Your task to perform on an android device: Open Youtube and go to the subscriptions tab Image 0: 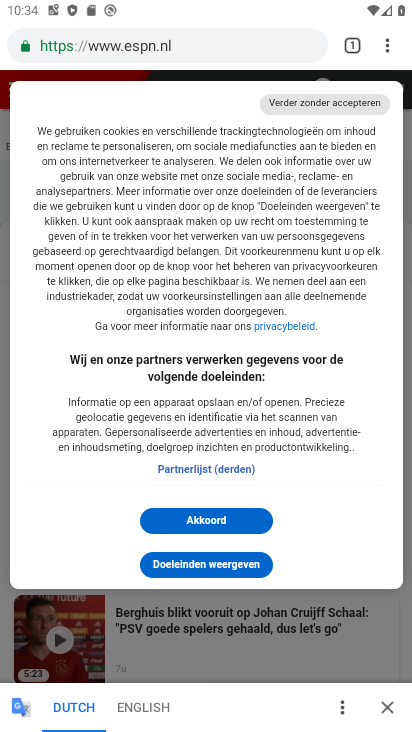
Step 0: press home button
Your task to perform on an android device: Open Youtube and go to the subscriptions tab Image 1: 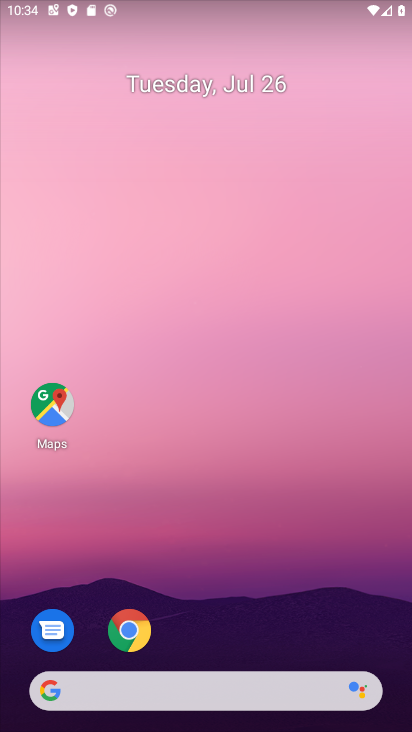
Step 1: drag from (214, 369) to (264, 100)
Your task to perform on an android device: Open Youtube and go to the subscriptions tab Image 2: 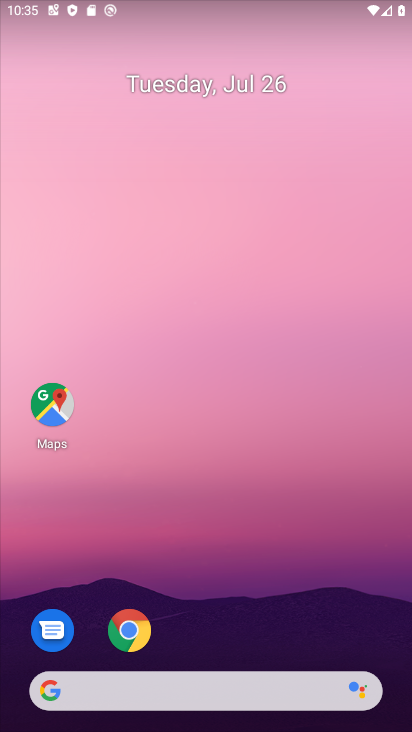
Step 2: drag from (225, 563) to (233, 154)
Your task to perform on an android device: Open Youtube and go to the subscriptions tab Image 3: 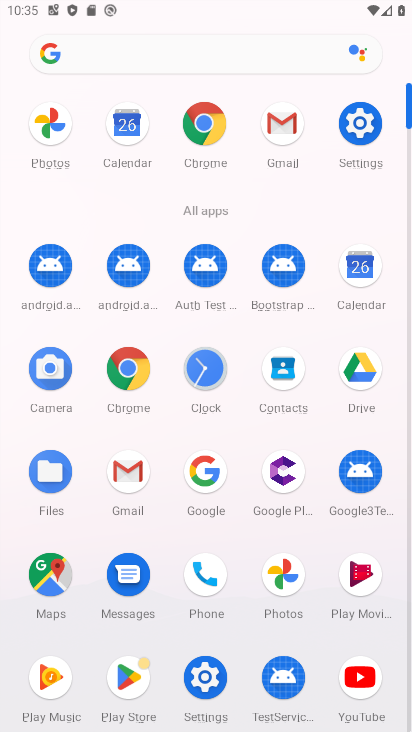
Step 3: click (366, 687)
Your task to perform on an android device: Open Youtube and go to the subscriptions tab Image 4: 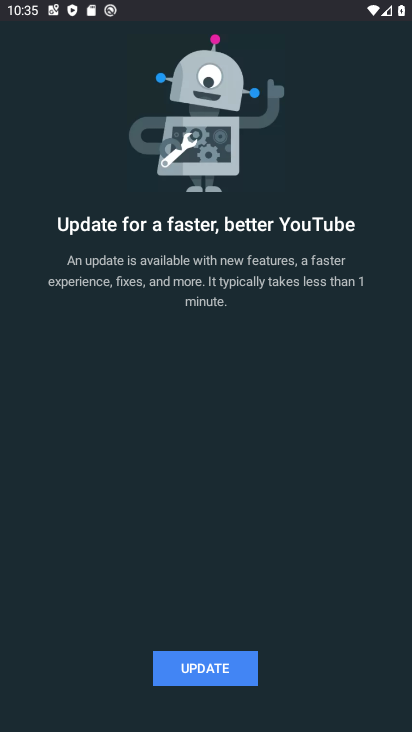
Step 4: click (212, 665)
Your task to perform on an android device: Open Youtube and go to the subscriptions tab Image 5: 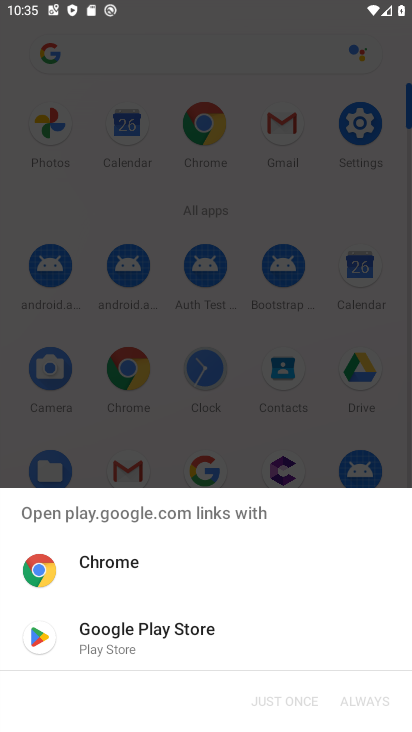
Step 5: click (123, 641)
Your task to perform on an android device: Open Youtube and go to the subscriptions tab Image 6: 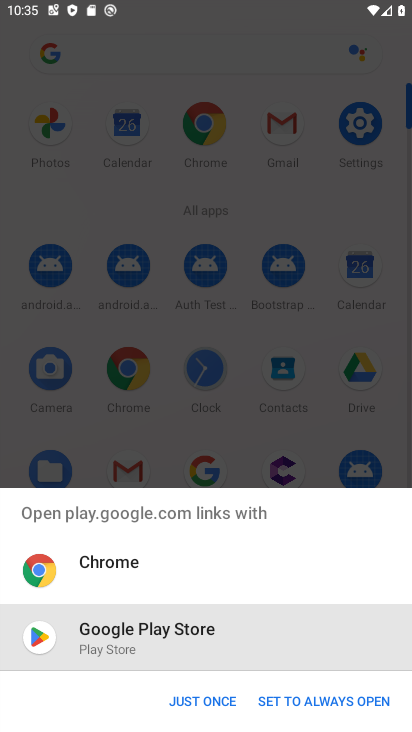
Step 6: click (297, 694)
Your task to perform on an android device: Open Youtube and go to the subscriptions tab Image 7: 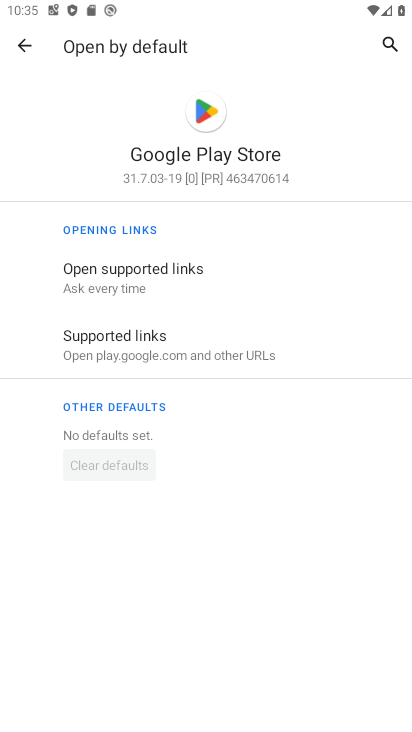
Step 7: click (121, 267)
Your task to perform on an android device: Open Youtube and go to the subscriptions tab Image 8: 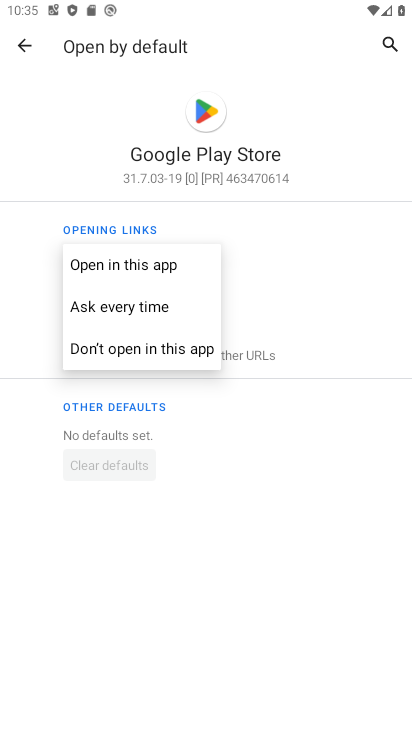
Step 8: click (101, 261)
Your task to perform on an android device: Open Youtube and go to the subscriptions tab Image 9: 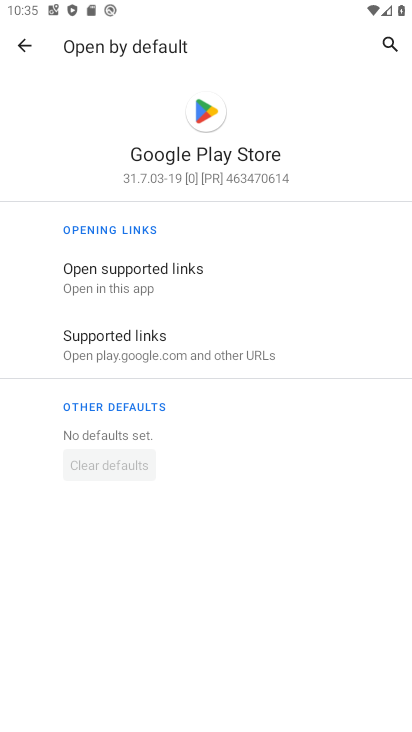
Step 9: click (20, 41)
Your task to perform on an android device: Open Youtube and go to the subscriptions tab Image 10: 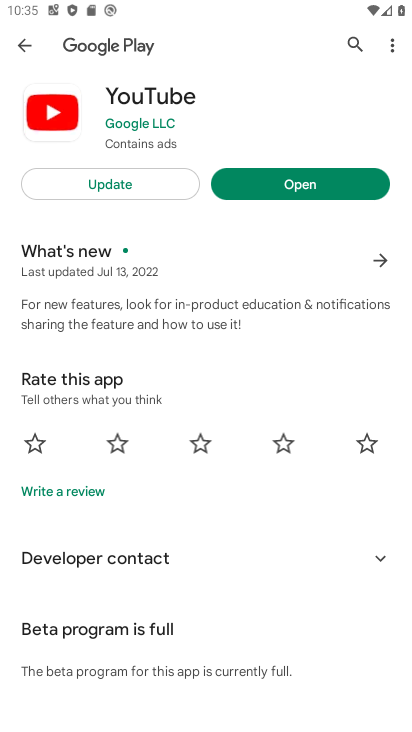
Step 10: click (97, 183)
Your task to perform on an android device: Open Youtube and go to the subscriptions tab Image 11: 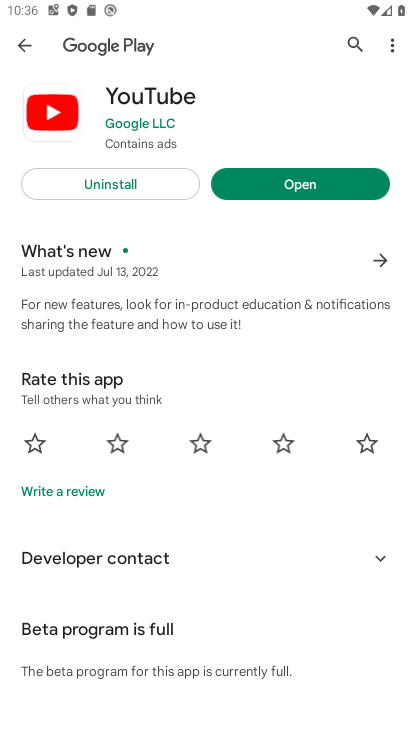
Step 11: click (256, 187)
Your task to perform on an android device: Open Youtube and go to the subscriptions tab Image 12: 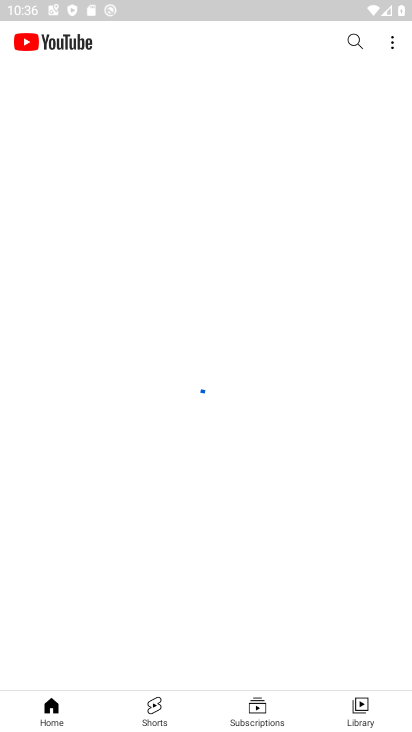
Step 12: click (252, 706)
Your task to perform on an android device: Open Youtube and go to the subscriptions tab Image 13: 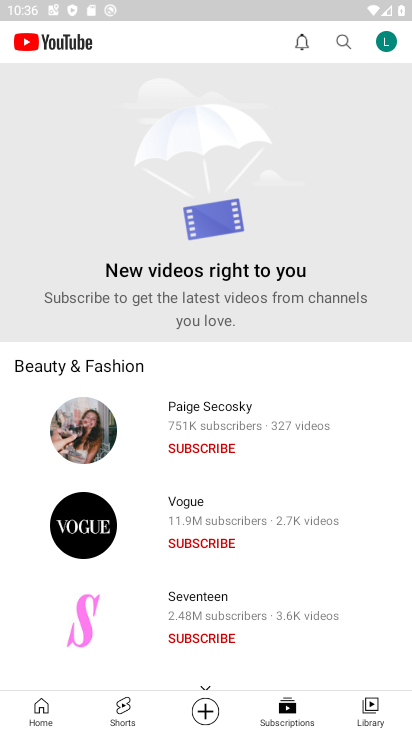
Step 13: task complete